Your task to perform on an android device: add a contact in the contacts app Image 0: 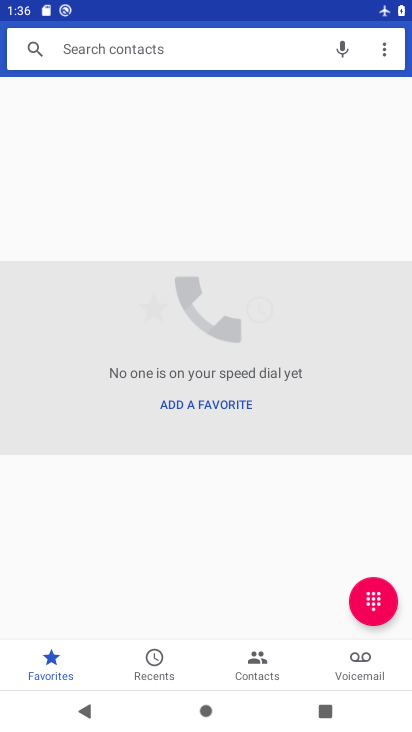
Step 0: press home button
Your task to perform on an android device: add a contact in the contacts app Image 1: 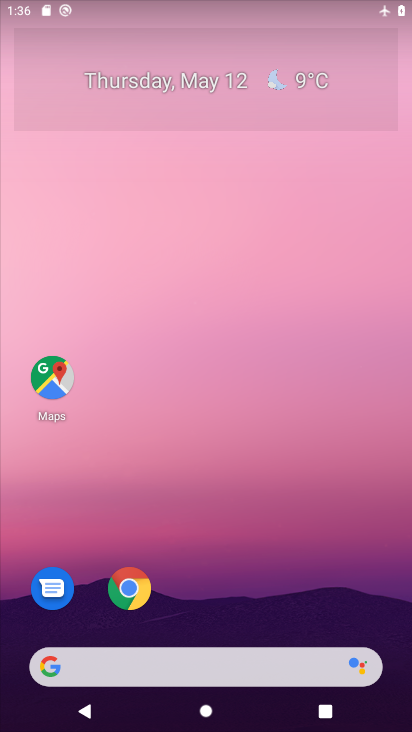
Step 1: drag from (243, 446) to (222, 18)
Your task to perform on an android device: add a contact in the contacts app Image 2: 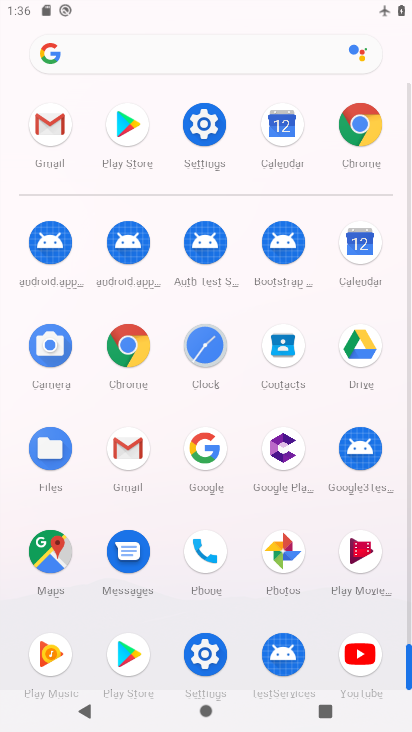
Step 2: click (204, 567)
Your task to perform on an android device: add a contact in the contacts app Image 3: 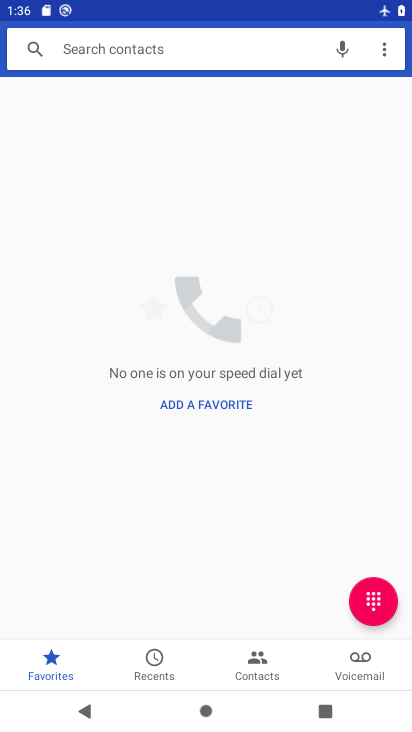
Step 3: click (249, 659)
Your task to perform on an android device: add a contact in the contacts app Image 4: 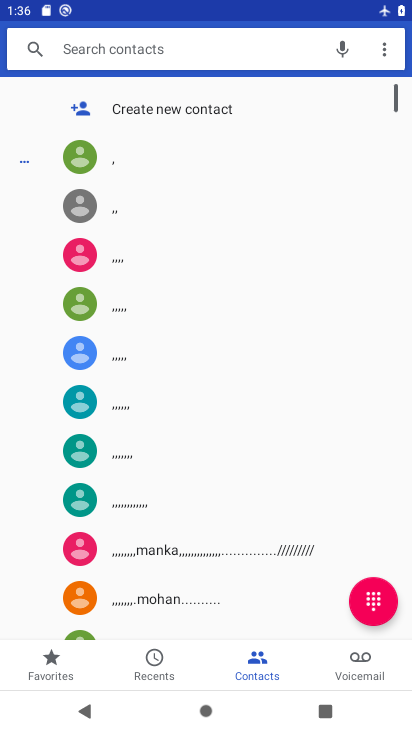
Step 4: click (134, 104)
Your task to perform on an android device: add a contact in the contacts app Image 5: 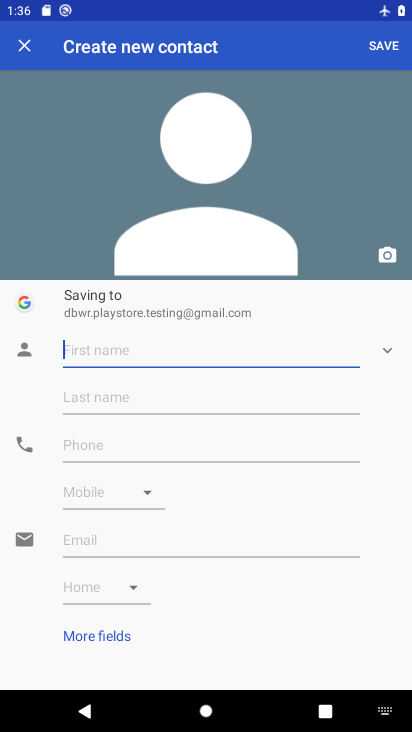
Step 5: type "yytt"
Your task to perform on an android device: add a contact in the contacts app Image 6: 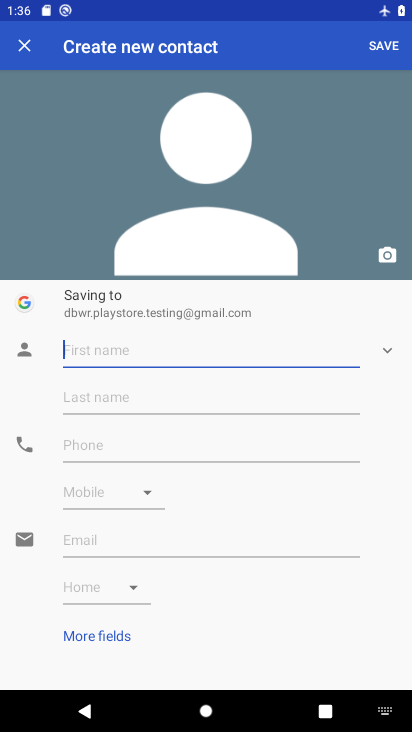
Step 6: click (137, 436)
Your task to perform on an android device: add a contact in the contacts app Image 7: 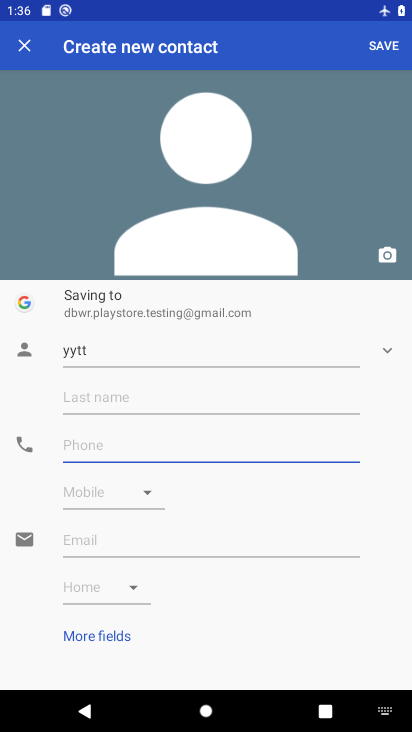
Step 7: type "677889987"
Your task to perform on an android device: add a contact in the contacts app Image 8: 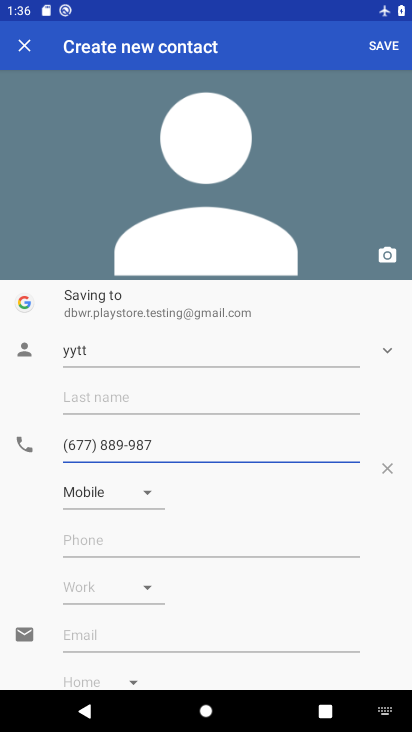
Step 8: click (384, 44)
Your task to perform on an android device: add a contact in the contacts app Image 9: 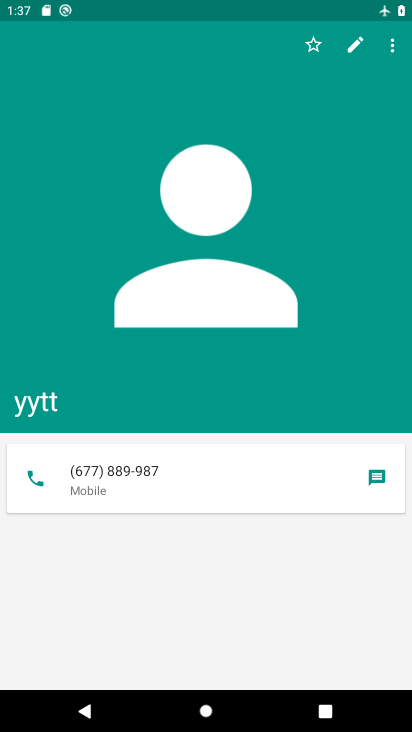
Step 9: task complete